Your task to perform on an android device: Add "usb-a" to the cart on walmart.com, then select checkout. Image 0: 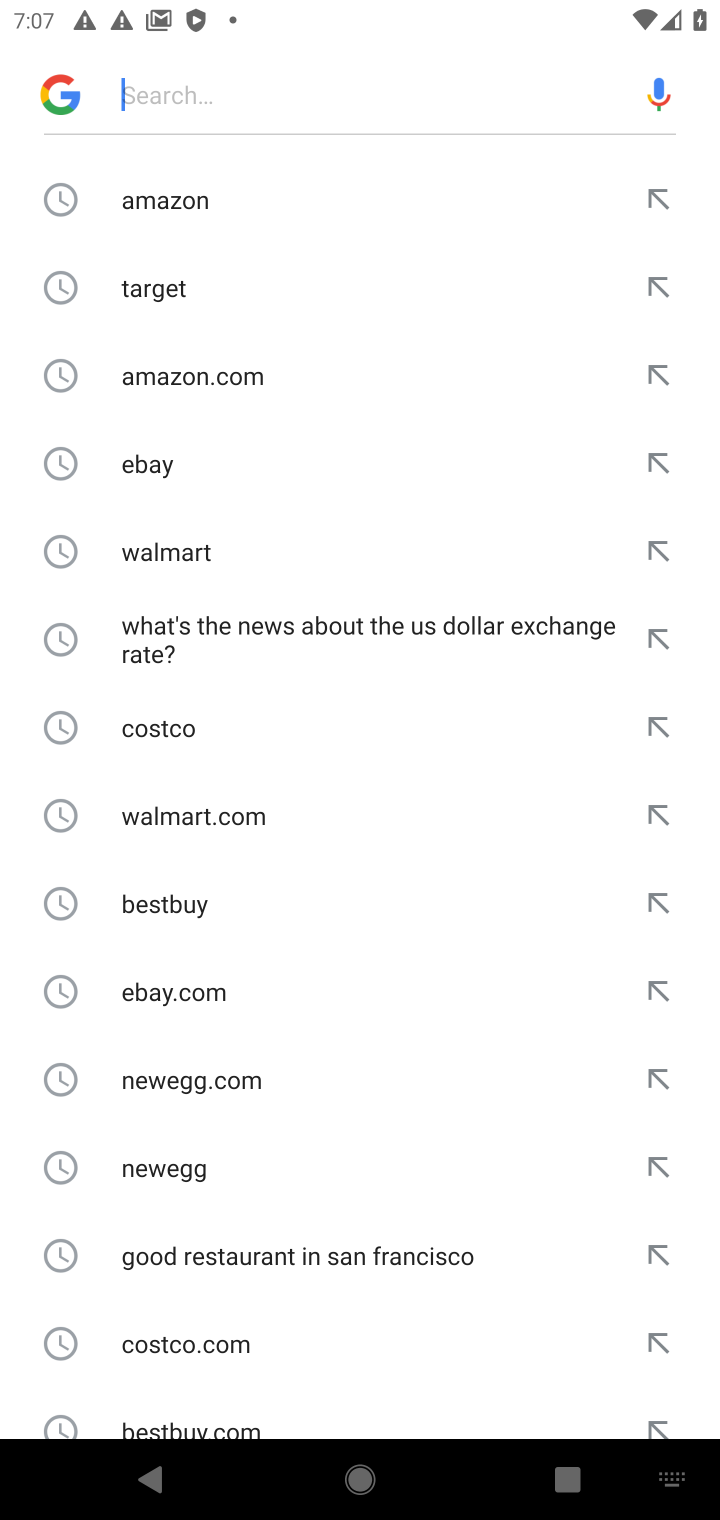
Step 0: press home button
Your task to perform on an android device: Add "usb-a" to the cart on walmart.com, then select checkout. Image 1: 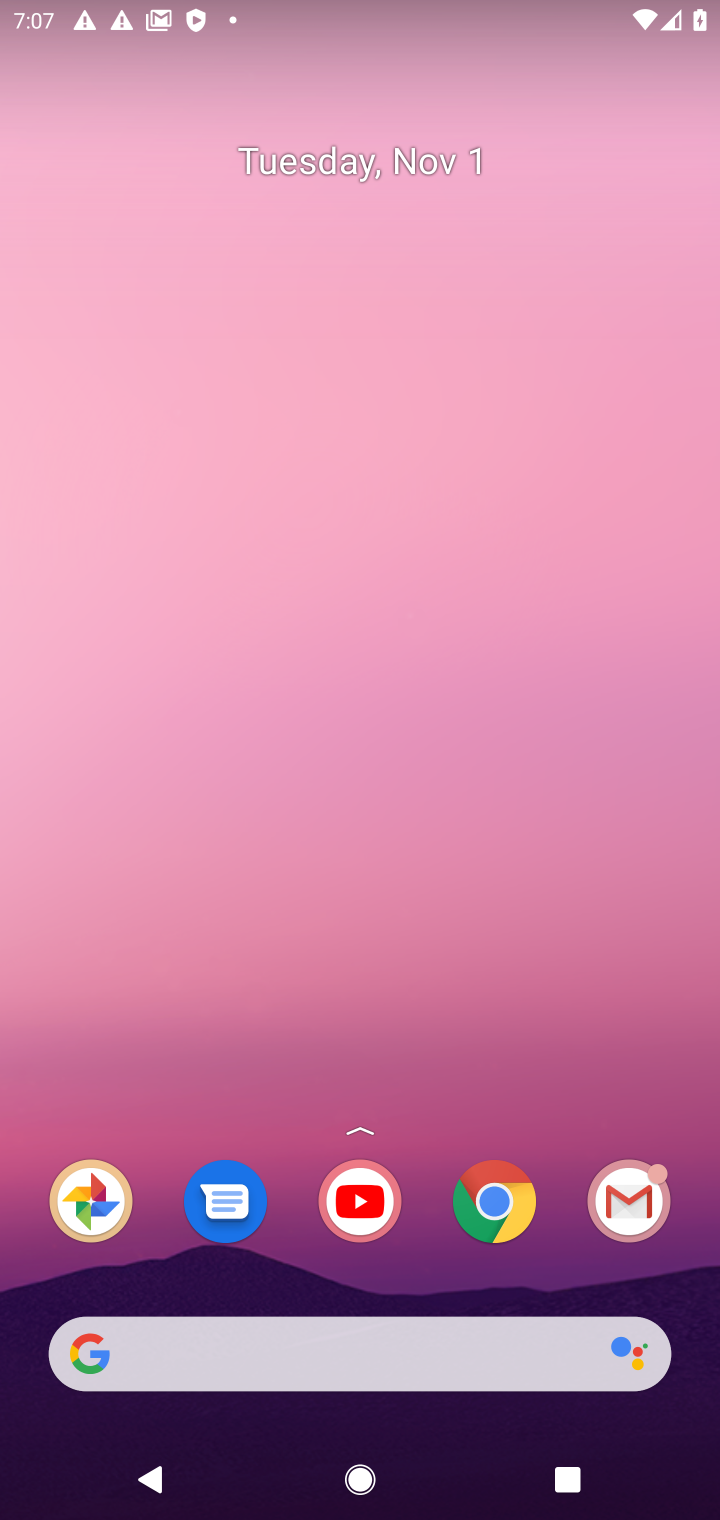
Step 1: click (291, 1375)
Your task to perform on an android device: Add "usb-a" to the cart on walmart.com, then select checkout. Image 2: 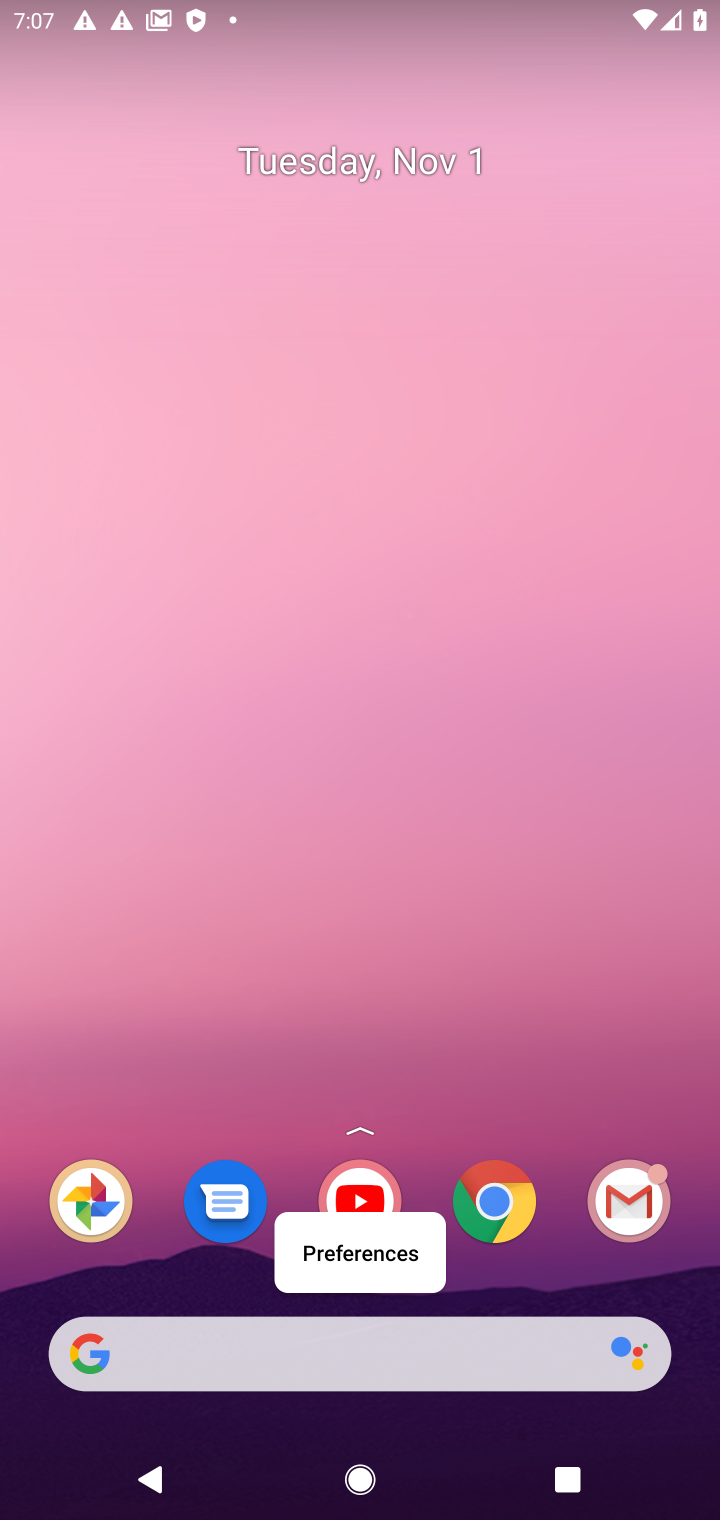
Step 2: click (286, 1363)
Your task to perform on an android device: Add "usb-a" to the cart on walmart.com, then select checkout. Image 3: 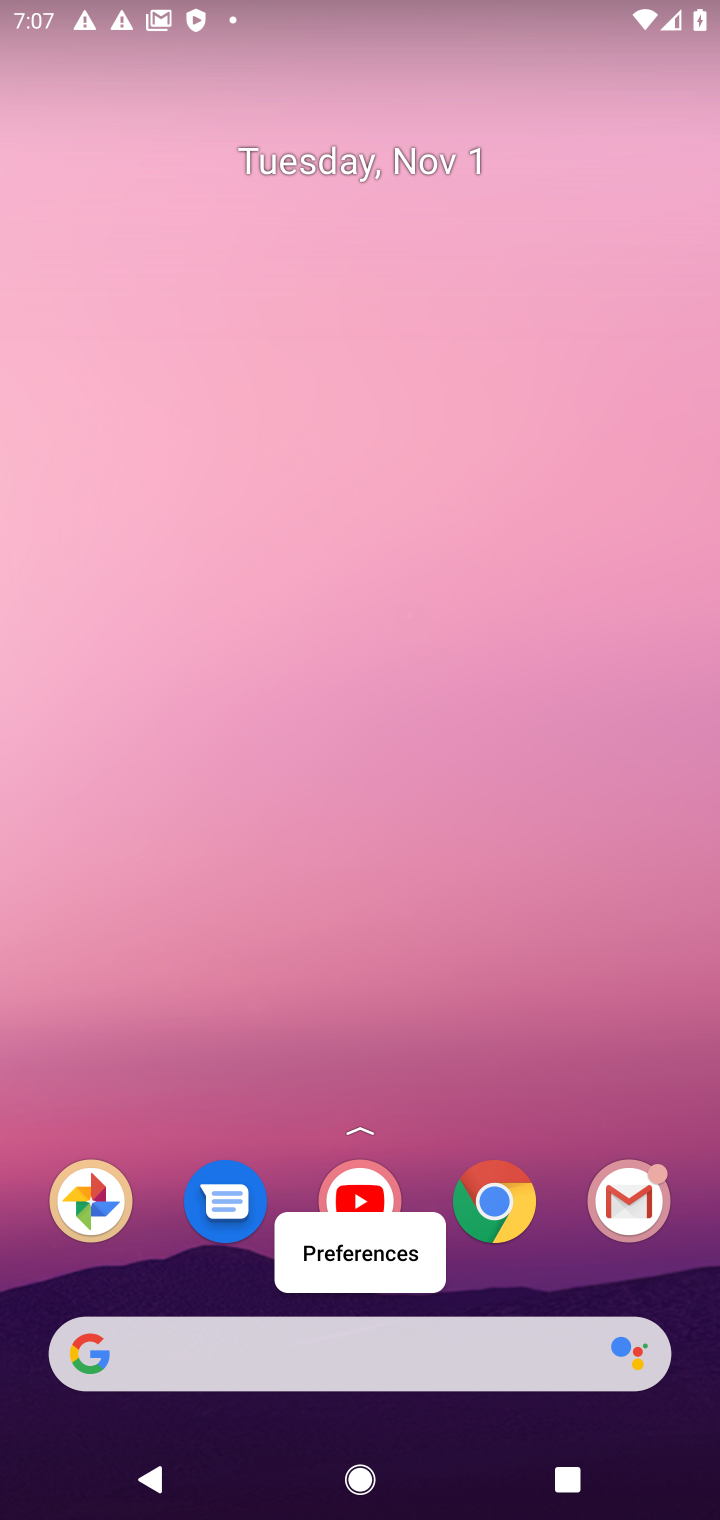
Step 3: click (286, 1363)
Your task to perform on an android device: Add "usb-a" to the cart on walmart.com, then select checkout. Image 4: 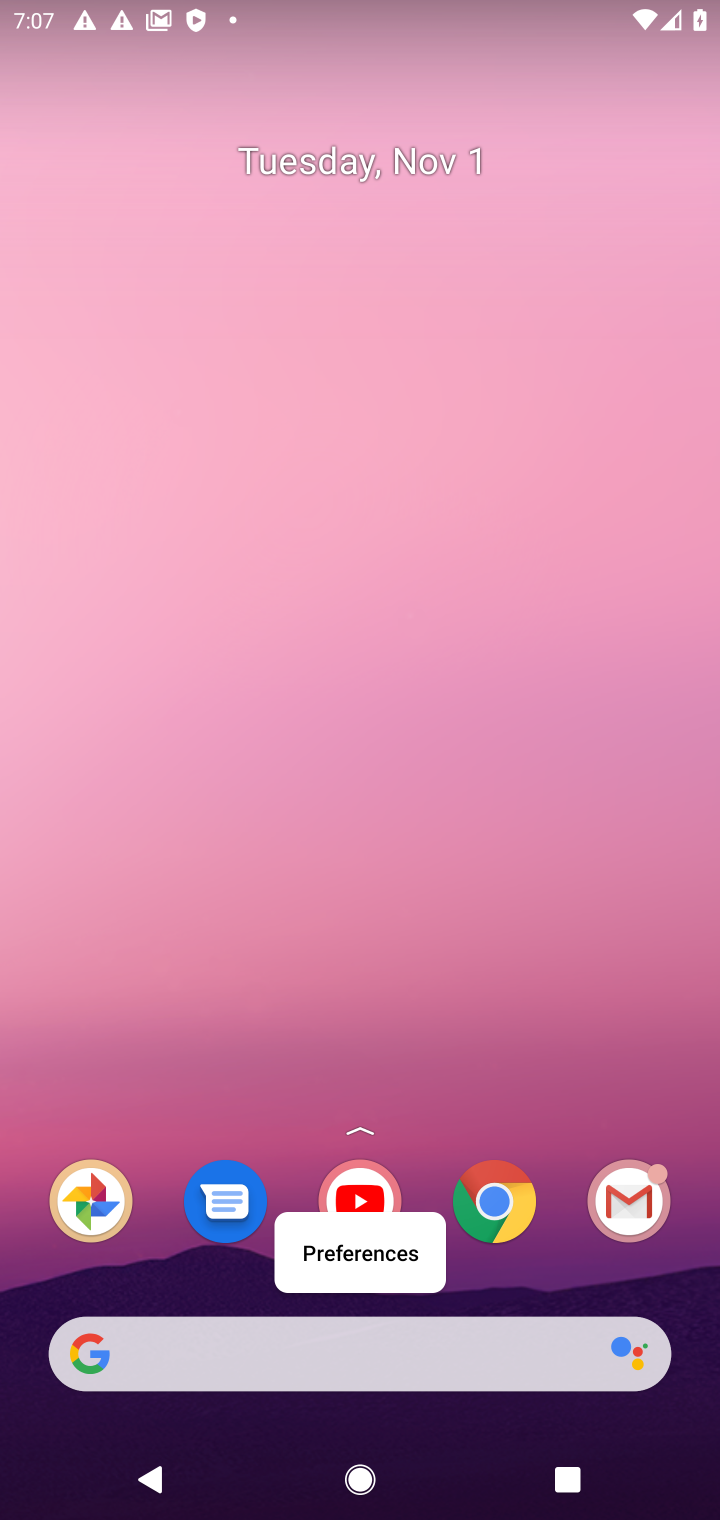
Step 4: click (288, 1358)
Your task to perform on an android device: Add "usb-a" to the cart on walmart.com, then select checkout. Image 5: 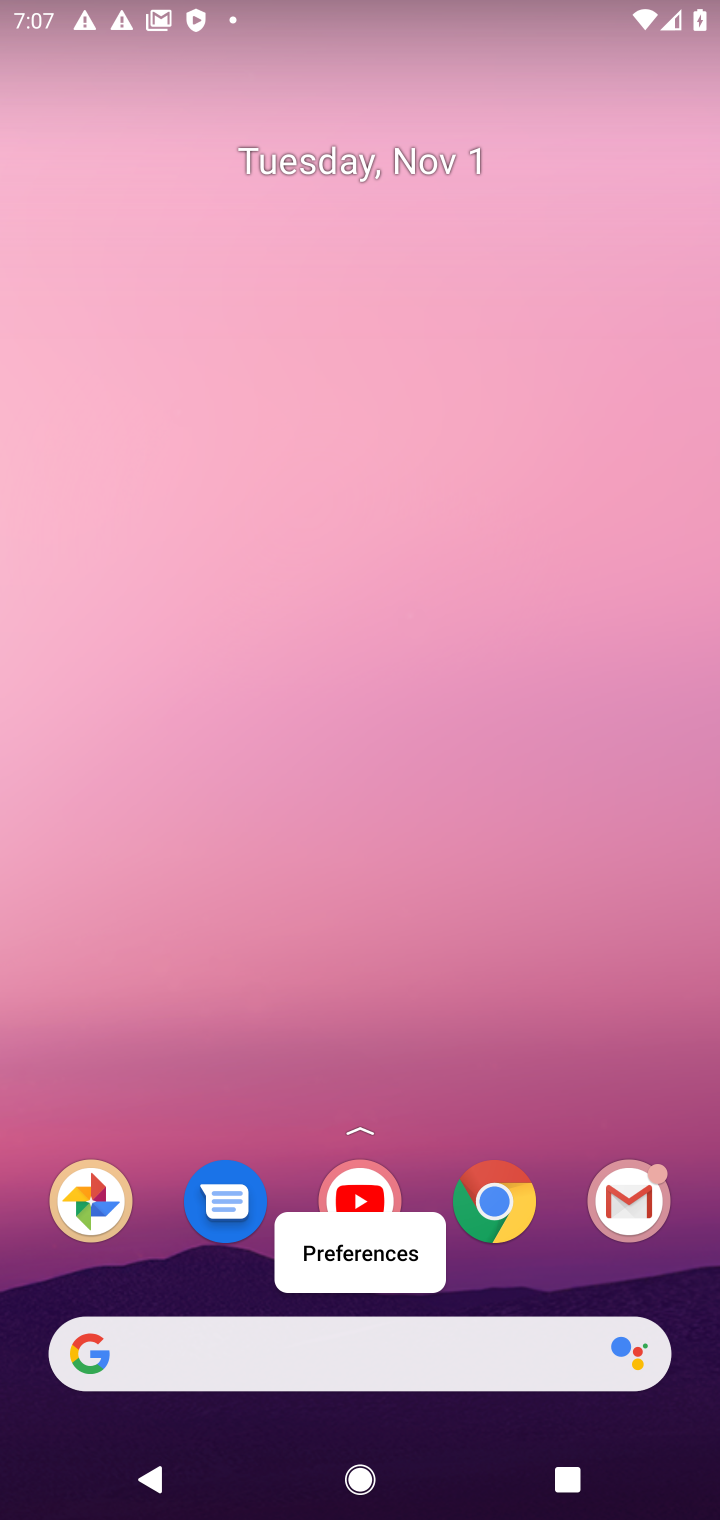
Step 5: click (288, 1358)
Your task to perform on an android device: Add "usb-a" to the cart on walmart.com, then select checkout. Image 6: 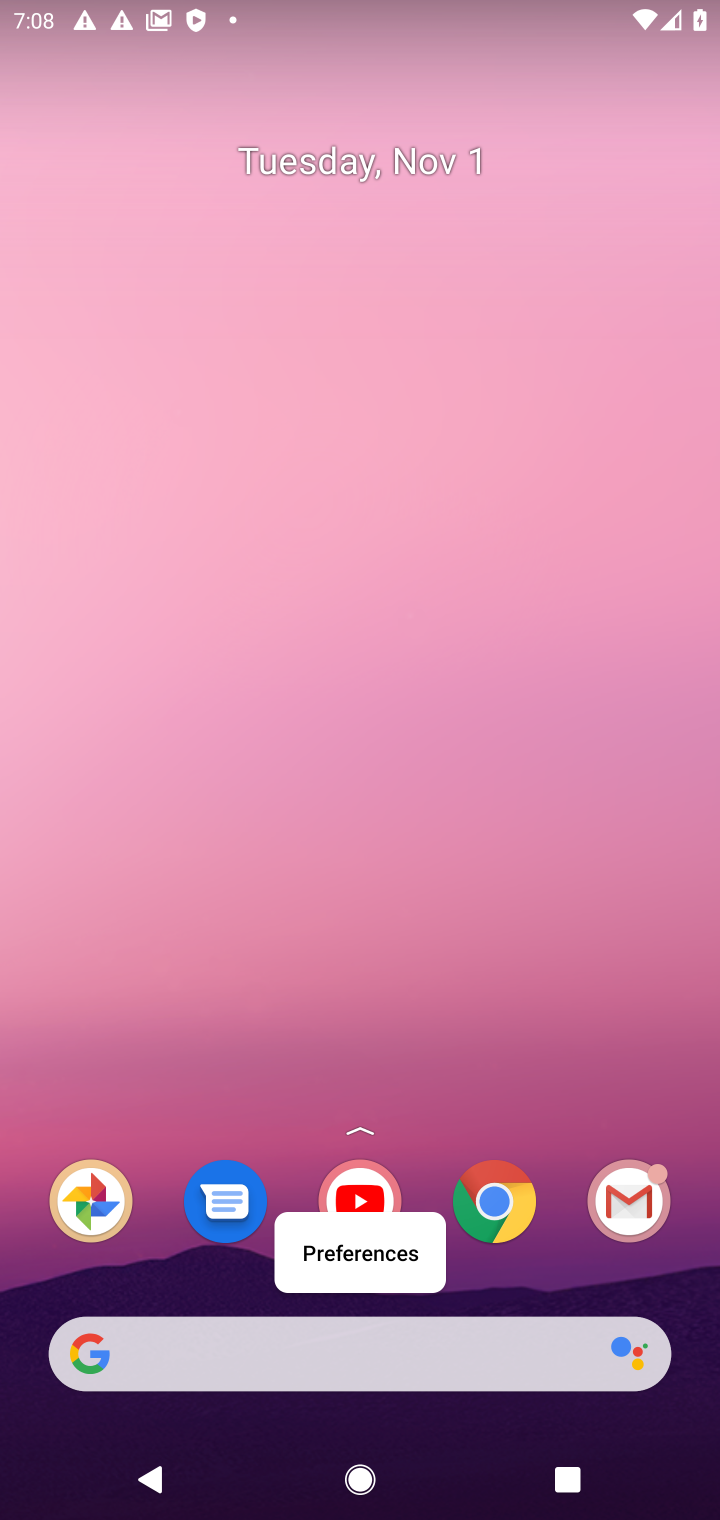
Step 6: click (281, 1358)
Your task to perform on an android device: Add "usb-a" to the cart on walmart.com, then select checkout. Image 7: 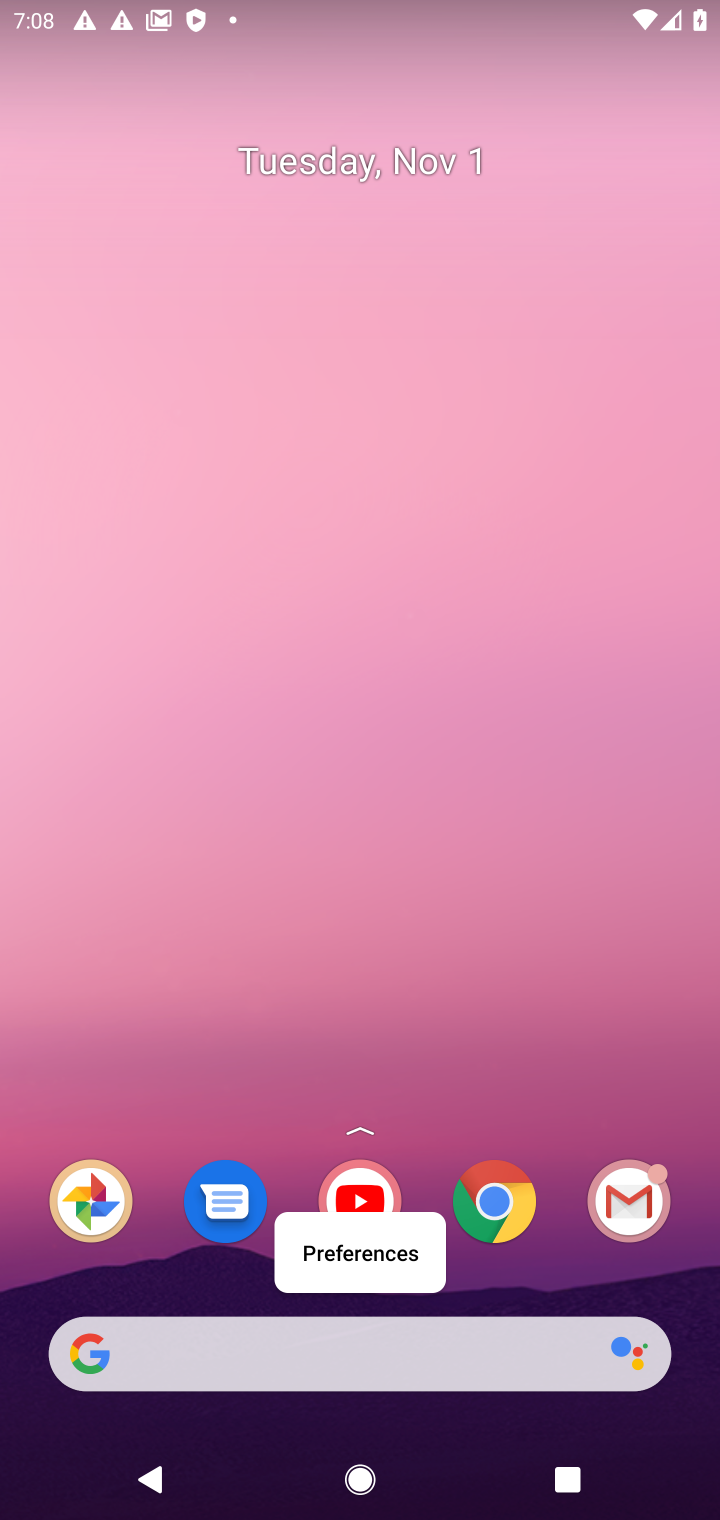
Step 7: click (487, 1202)
Your task to perform on an android device: Add "usb-a" to the cart on walmart.com, then select checkout. Image 8: 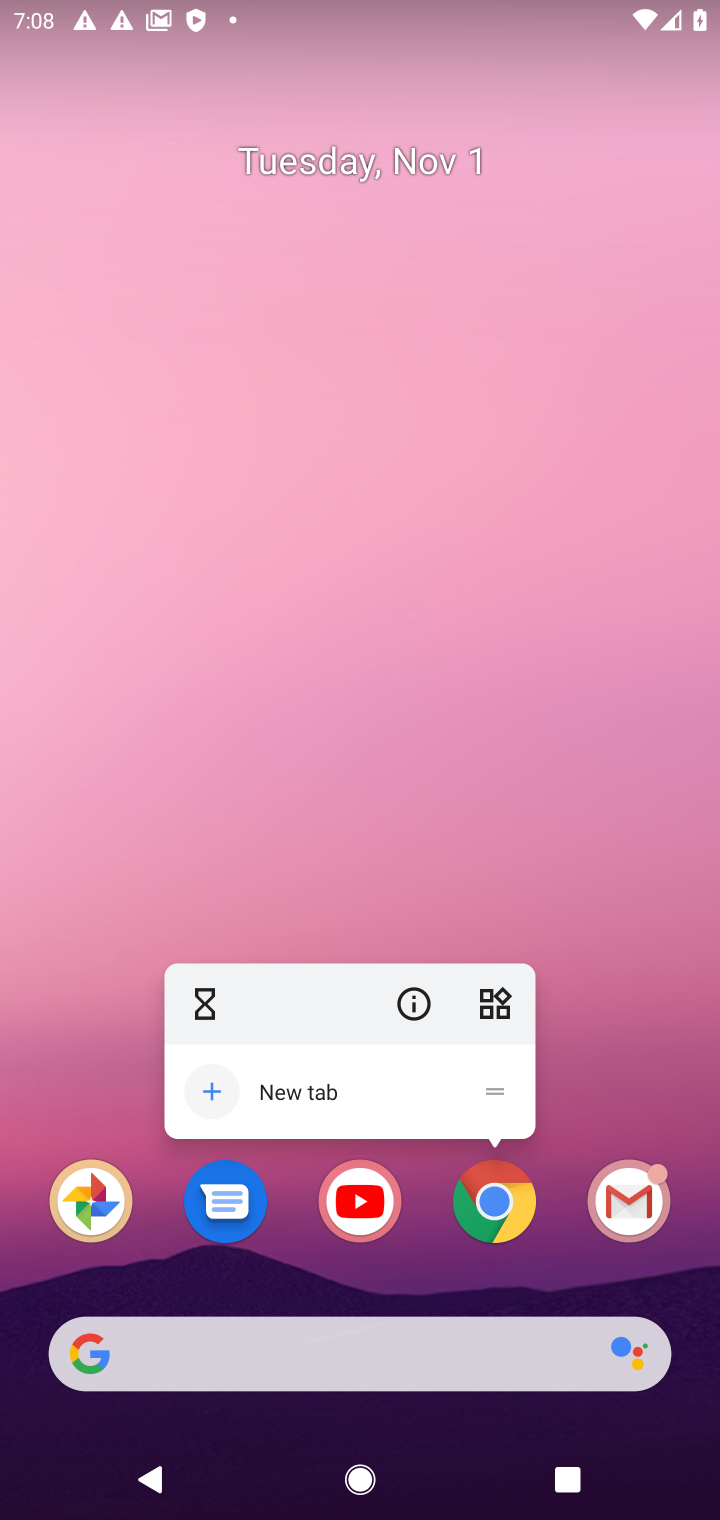
Step 8: click (490, 1200)
Your task to perform on an android device: Add "usb-a" to the cart on walmart.com, then select checkout. Image 9: 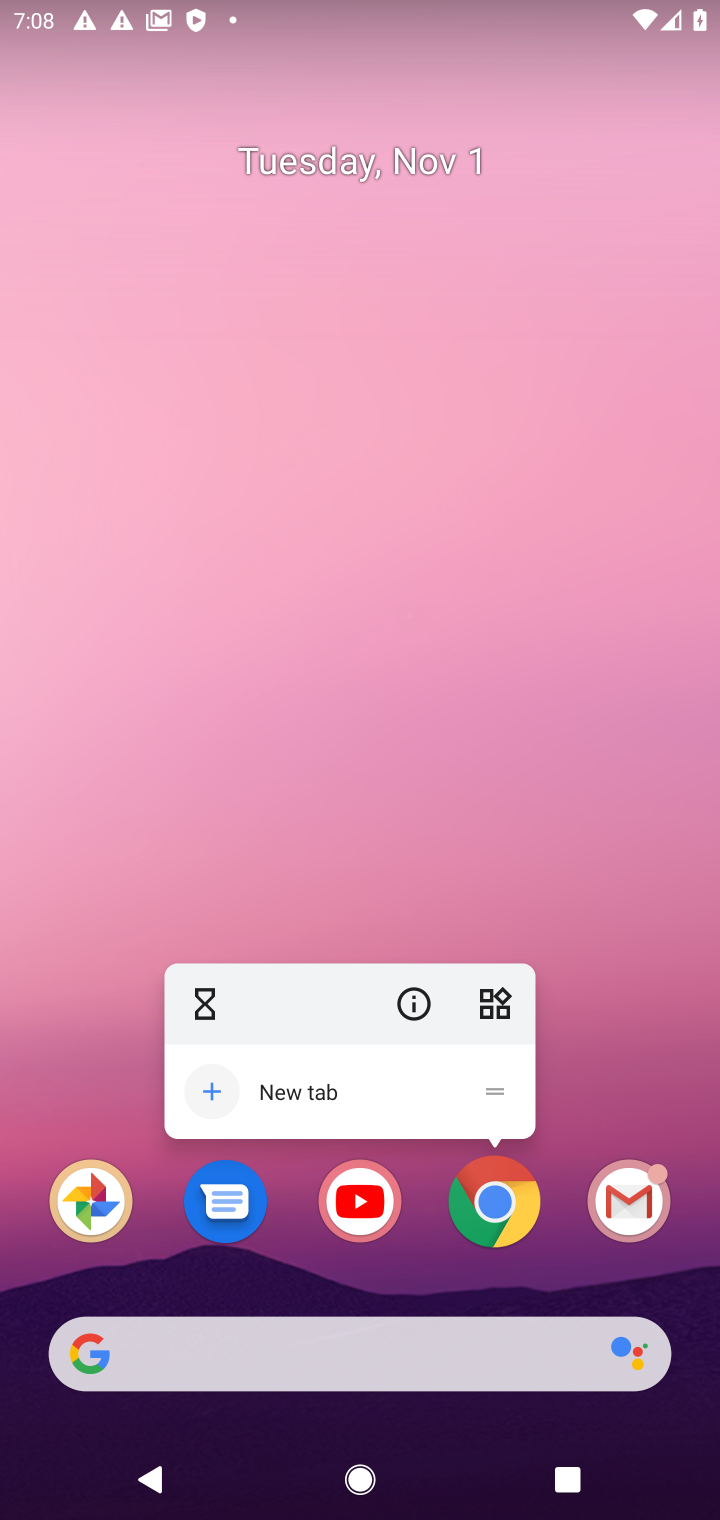
Step 9: click (490, 1198)
Your task to perform on an android device: Add "usb-a" to the cart on walmart.com, then select checkout. Image 10: 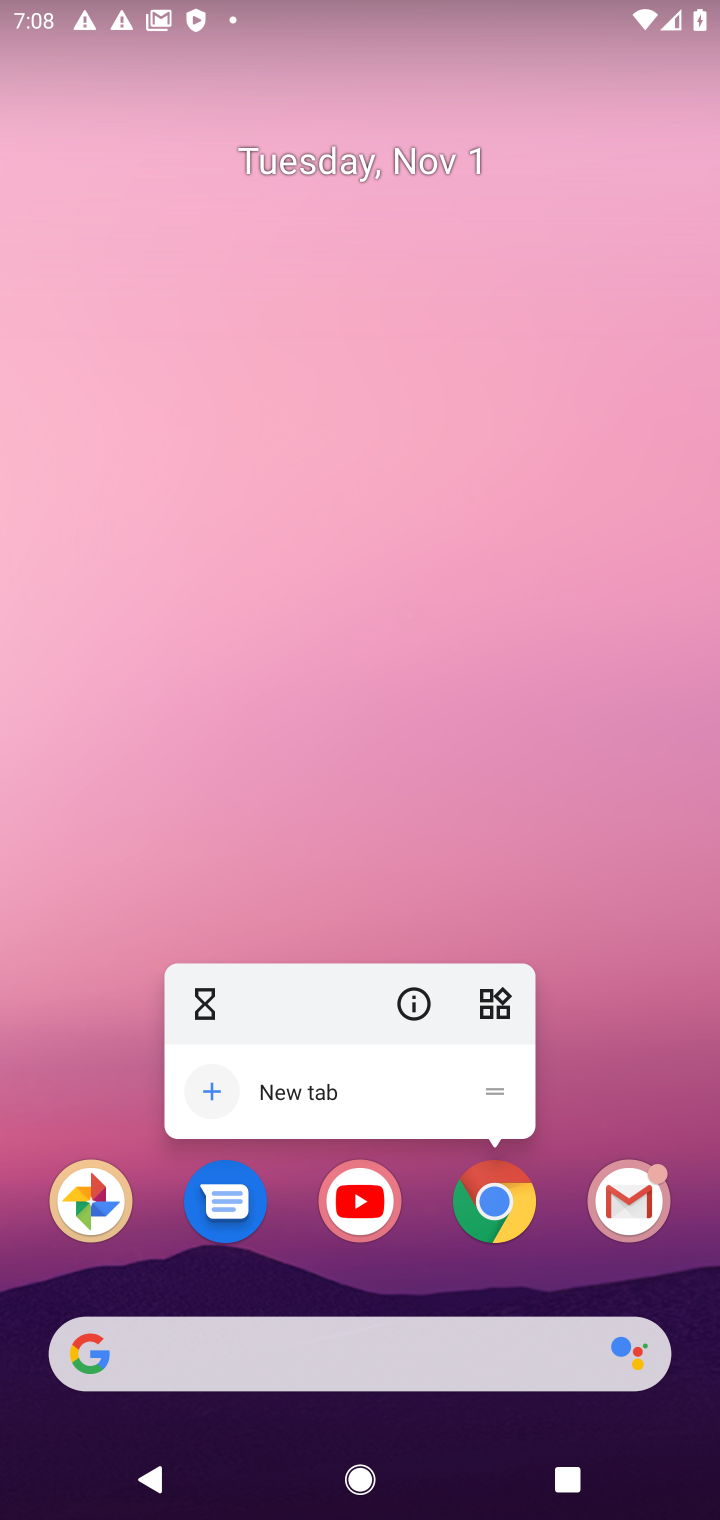
Step 10: click (490, 1196)
Your task to perform on an android device: Add "usb-a" to the cart on walmart.com, then select checkout. Image 11: 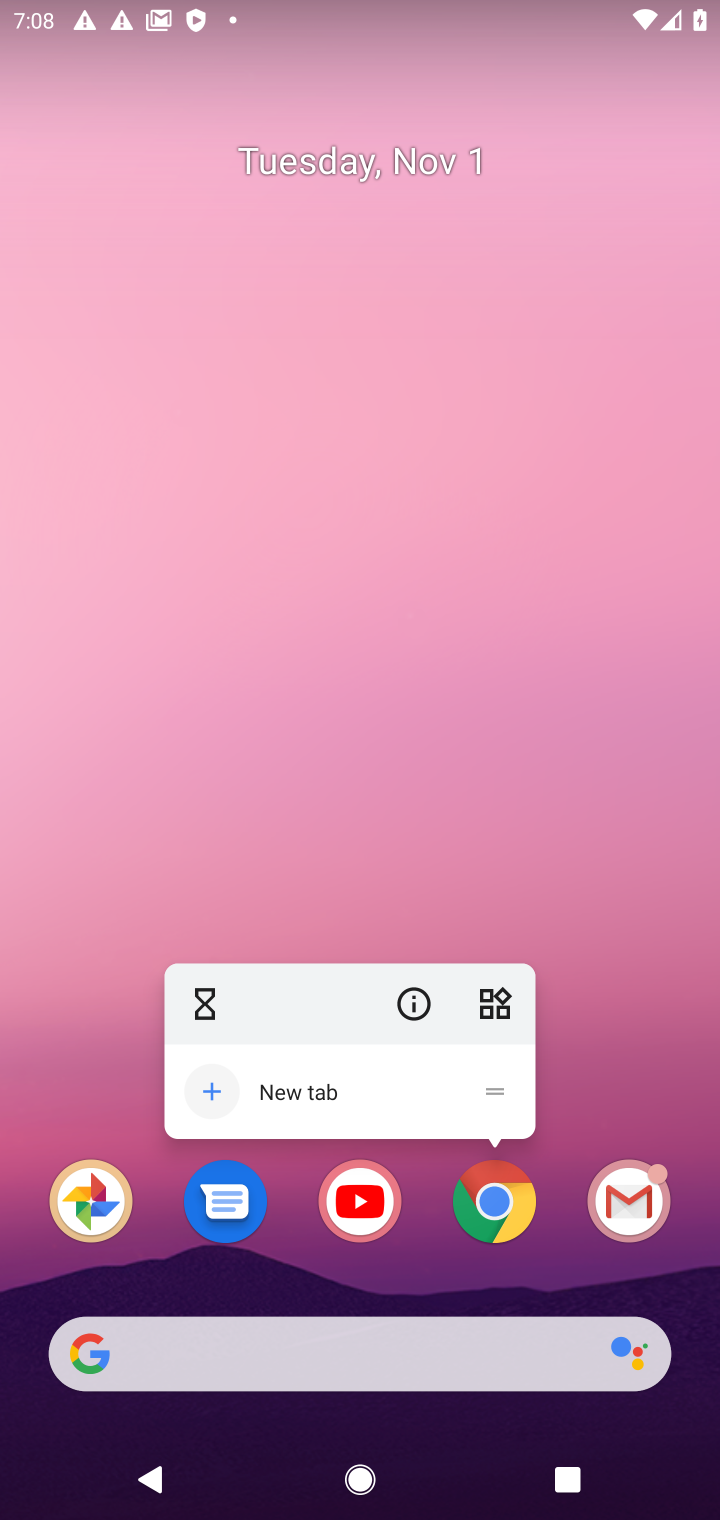
Step 11: click (327, 1348)
Your task to perform on an android device: Add "usb-a" to the cart on walmart.com, then select checkout. Image 12: 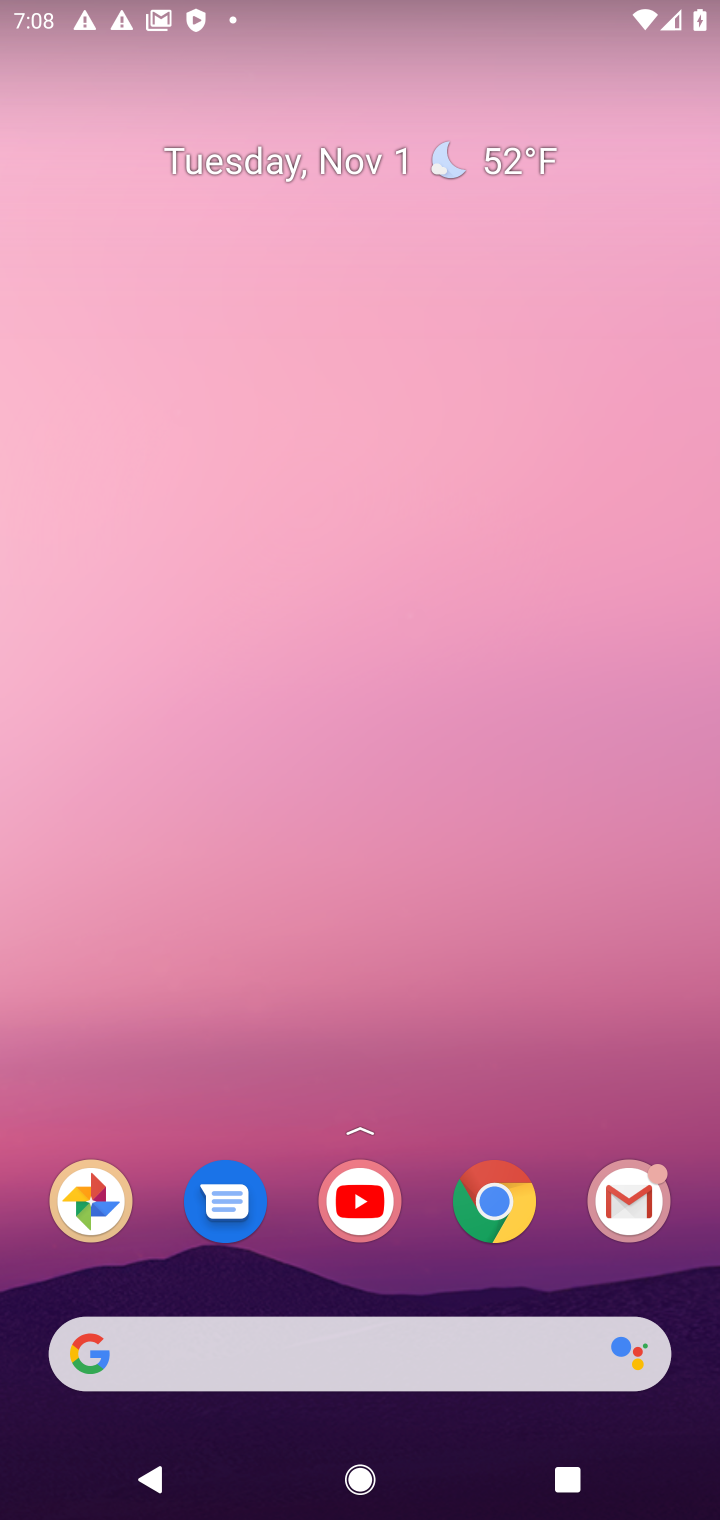
Step 12: click (329, 1337)
Your task to perform on an android device: Add "usb-a" to the cart on walmart.com, then select checkout. Image 13: 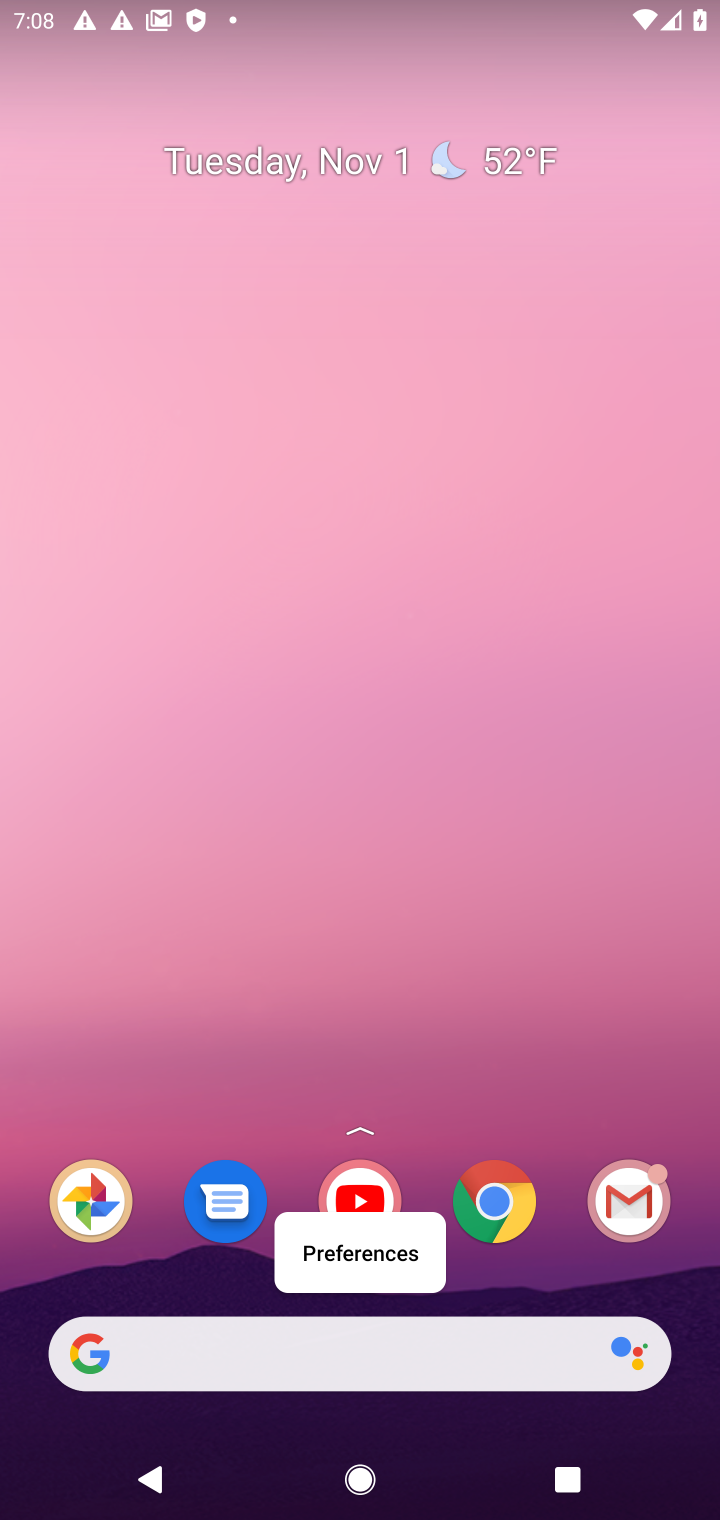
Step 13: click (260, 1343)
Your task to perform on an android device: Add "usb-a" to the cart on walmart.com, then select checkout. Image 14: 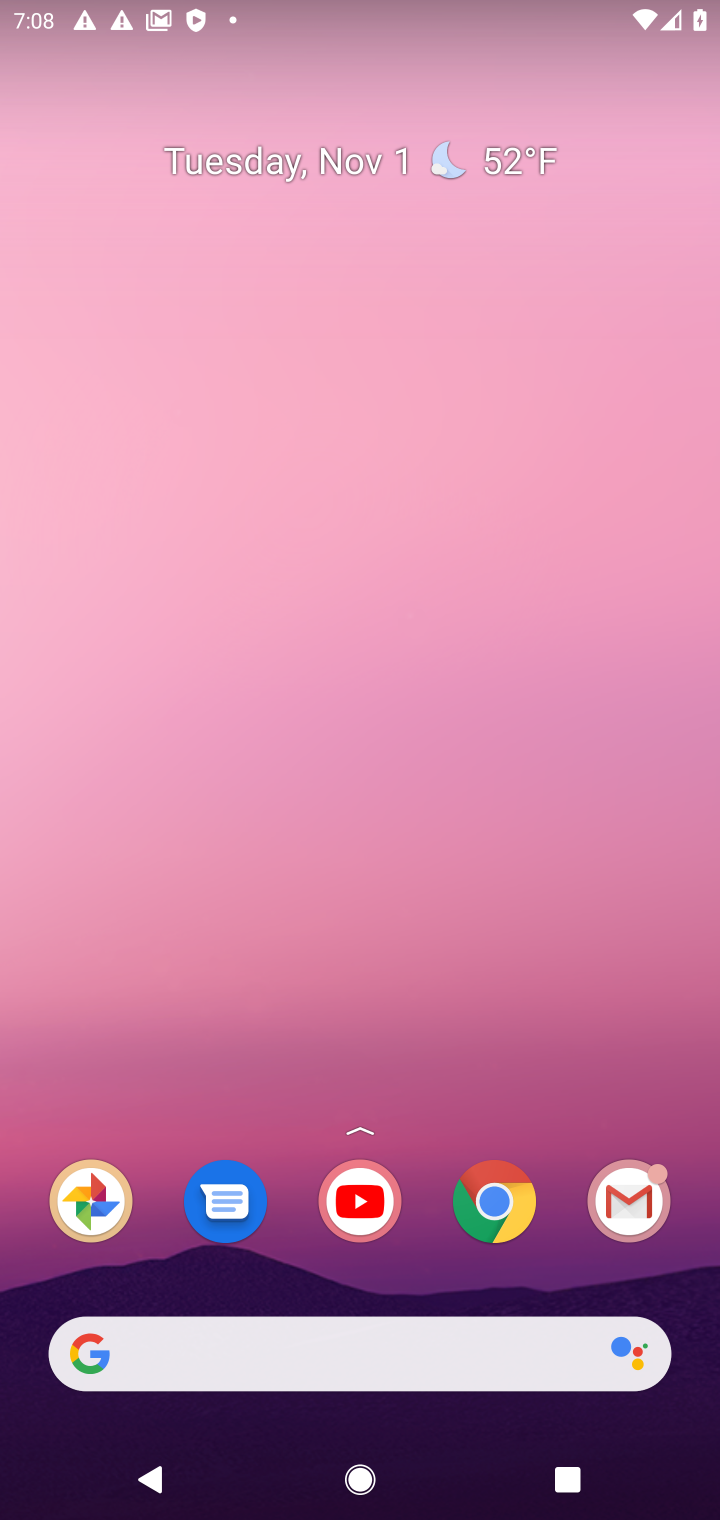
Step 14: click (260, 1343)
Your task to perform on an android device: Add "usb-a" to the cart on walmart.com, then select checkout. Image 15: 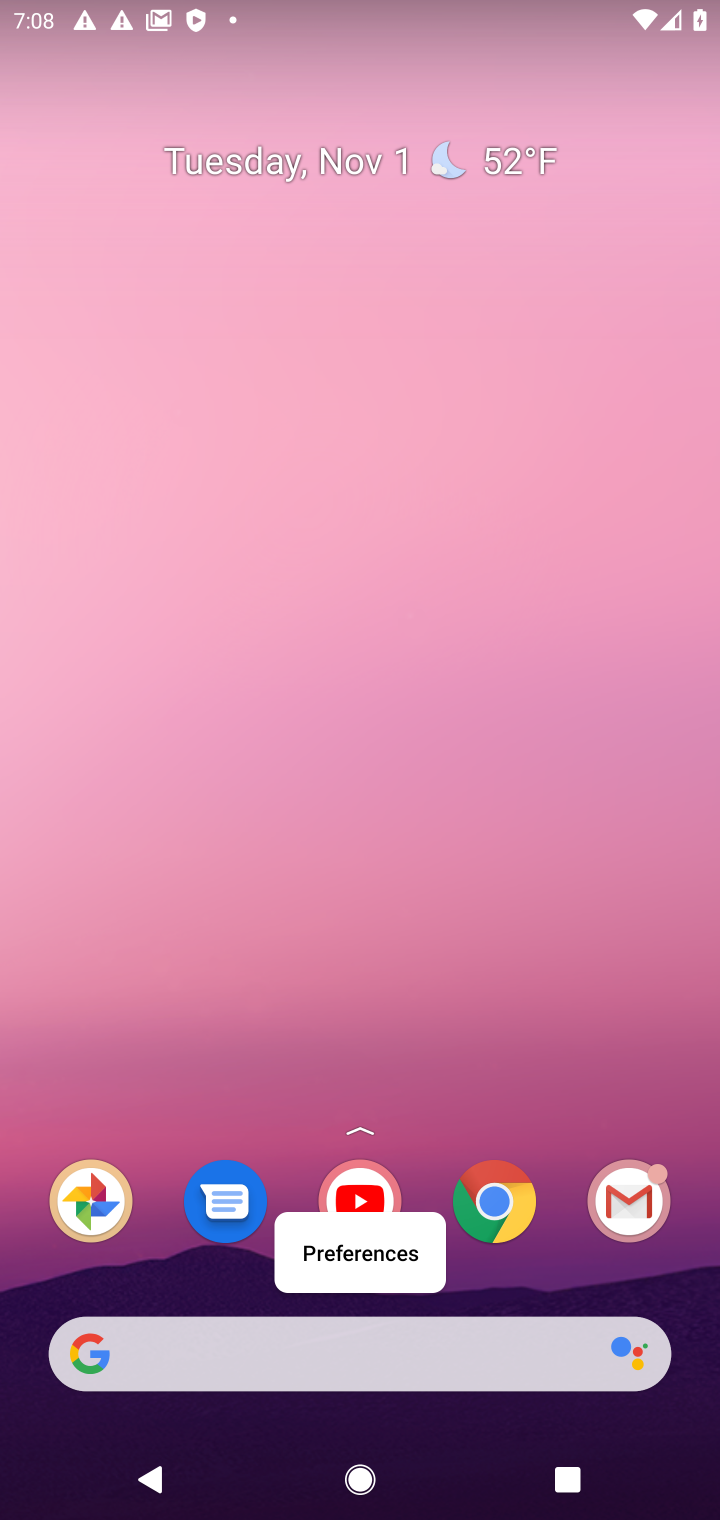
Step 15: drag from (291, 1370) to (226, 1342)
Your task to perform on an android device: Add "usb-a" to the cart on walmart.com, then select checkout. Image 16: 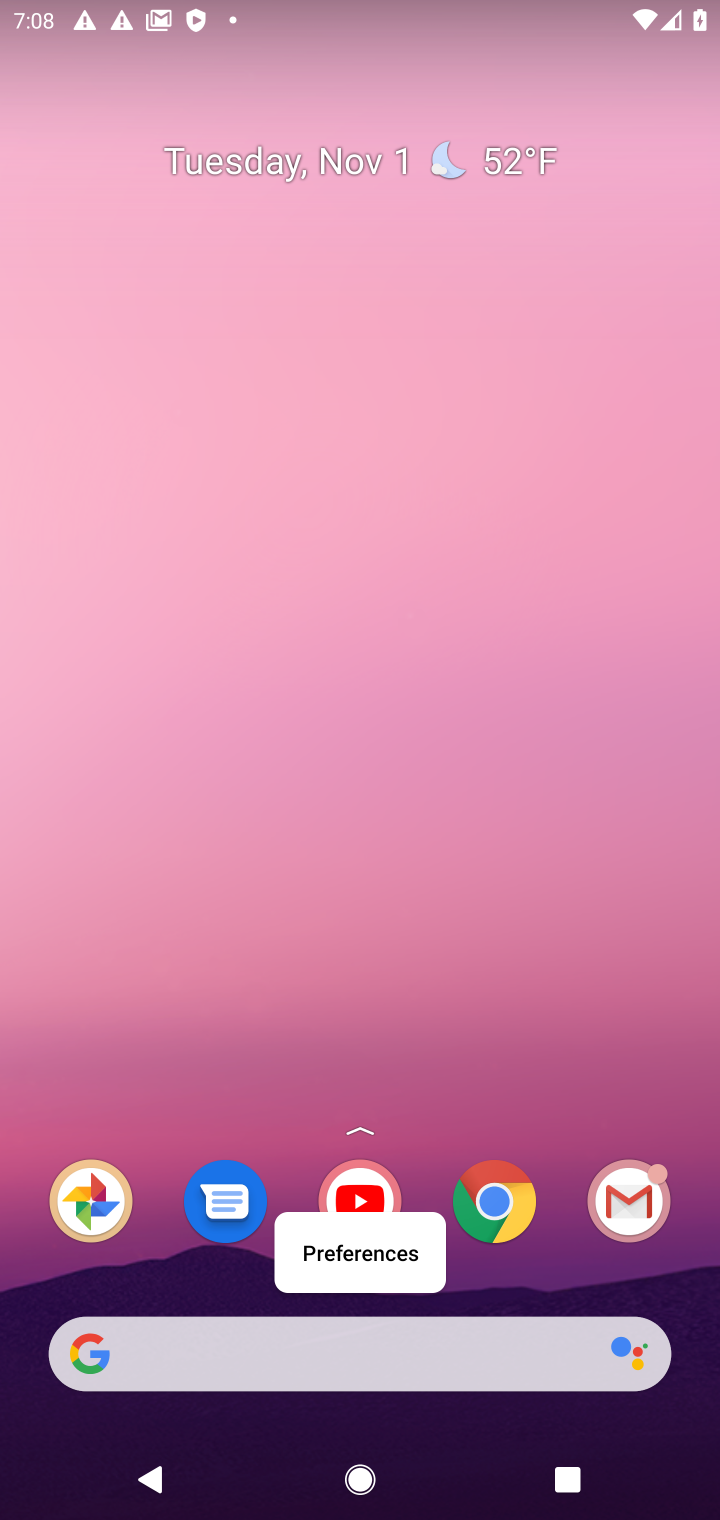
Step 16: click (226, 1342)
Your task to perform on an android device: Add "usb-a" to the cart on walmart.com, then select checkout. Image 17: 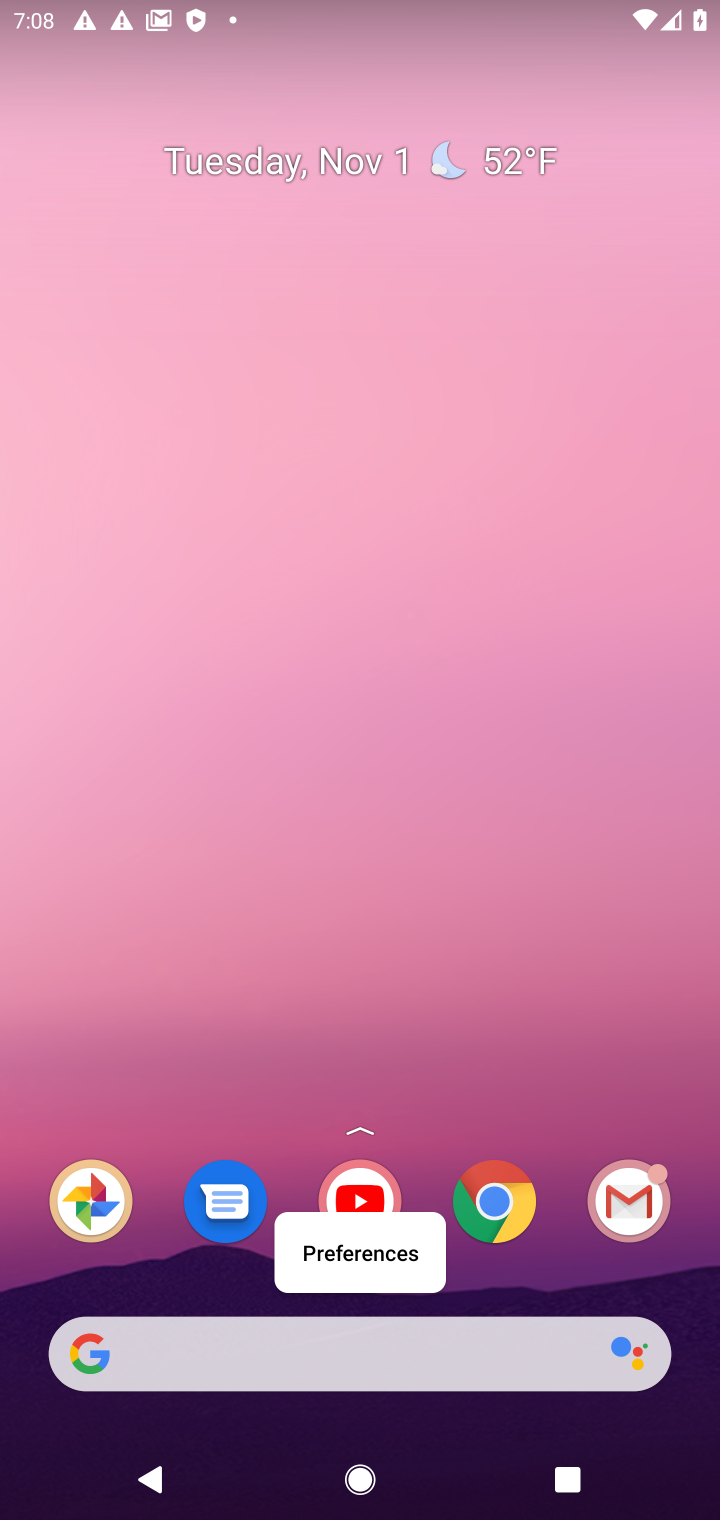
Step 17: click (226, 1342)
Your task to perform on an android device: Add "usb-a" to the cart on walmart.com, then select checkout. Image 18: 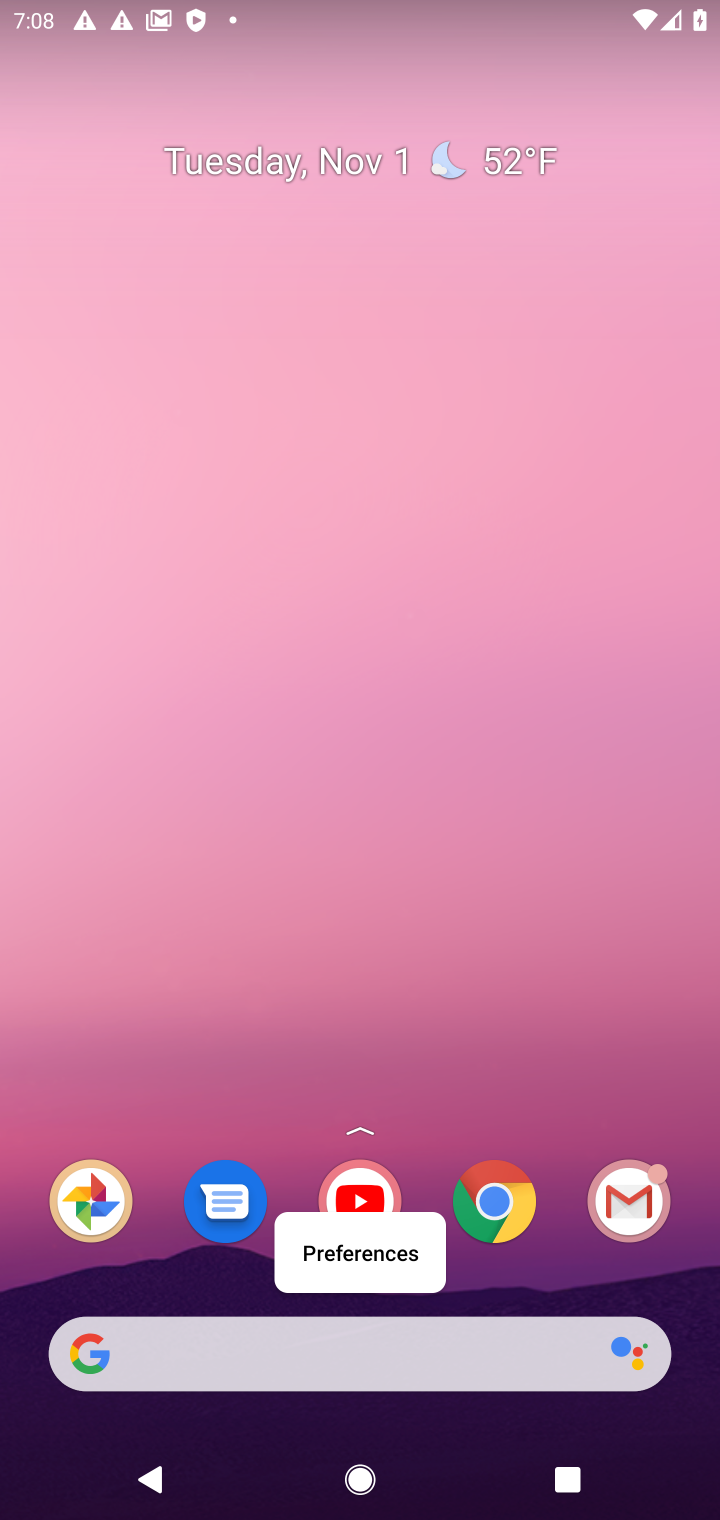
Step 18: click (226, 1342)
Your task to perform on an android device: Add "usb-a" to the cart on walmart.com, then select checkout. Image 19: 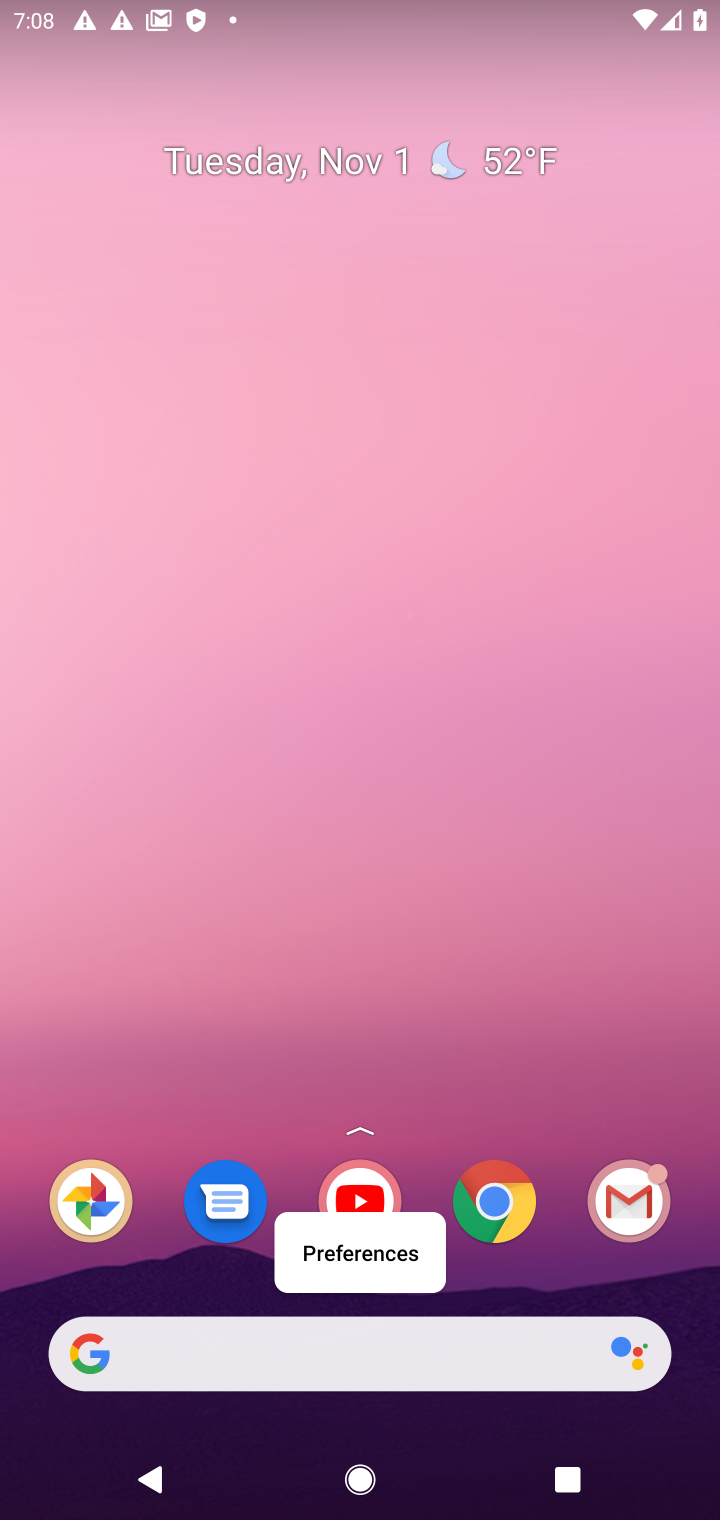
Step 19: click (226, 1342)
Your task to perform on an android device: Add "usb-a" to the cart on walmart.com, then select checkout. Image 20: 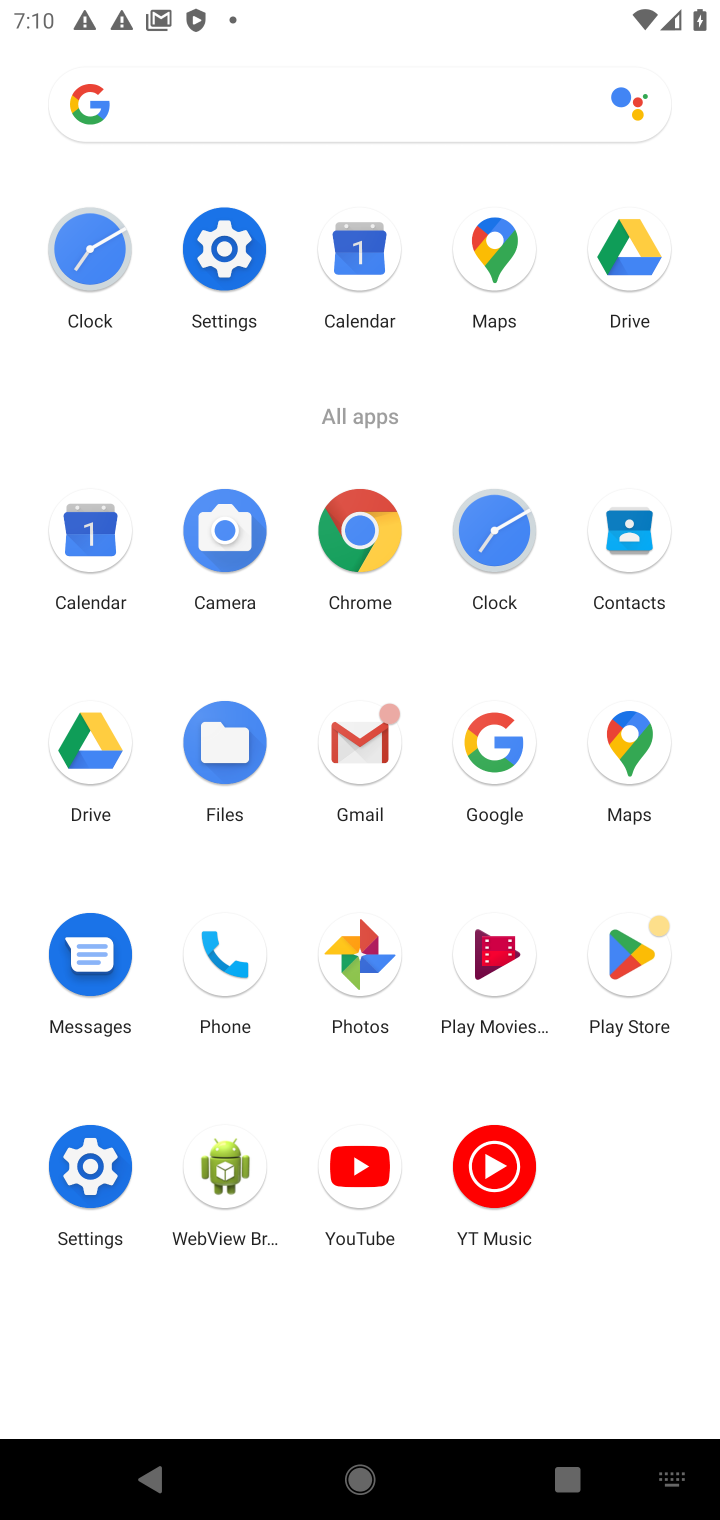
Step 20: task complete